Your task to perform on an android device: Do I have any events tomorrow? Image 0: 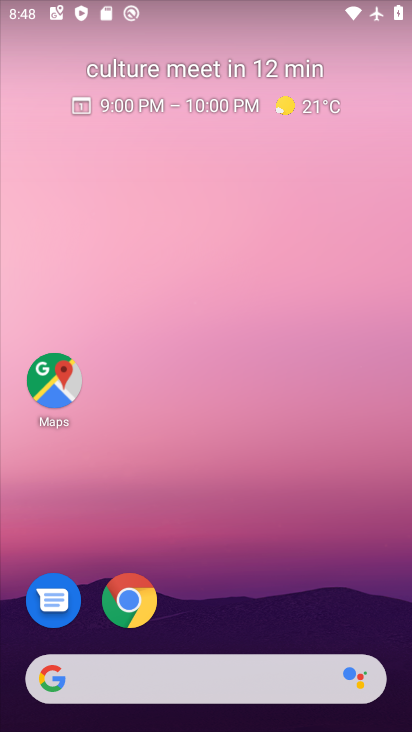
Step 0: drag from (369, 646) to (302, 127)
Your task to perform on an android device: Do I have any events tomorrow? Image 1: 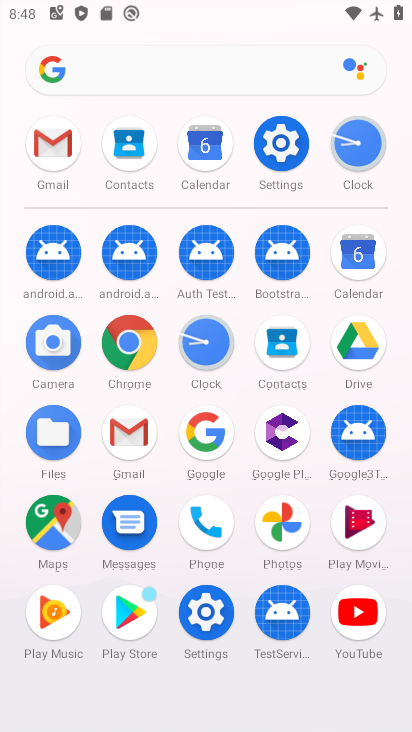
Step 1: click (357, 253)
Your task to perform on an android device: Do I have any events tomorrow? Image 2: 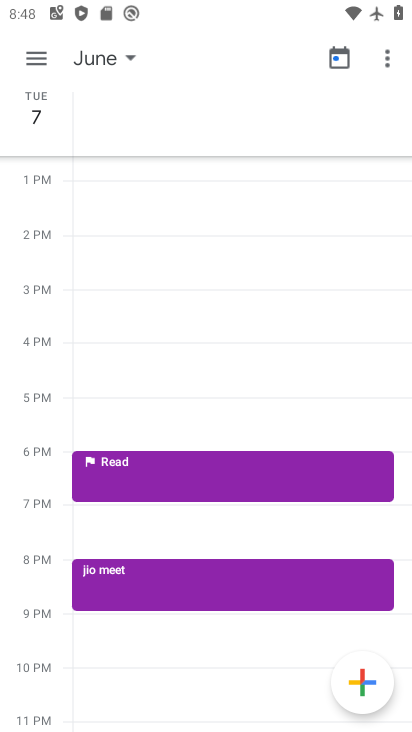
Step 2: task complete